Your task to perform on an android device: check google app version Image 0: 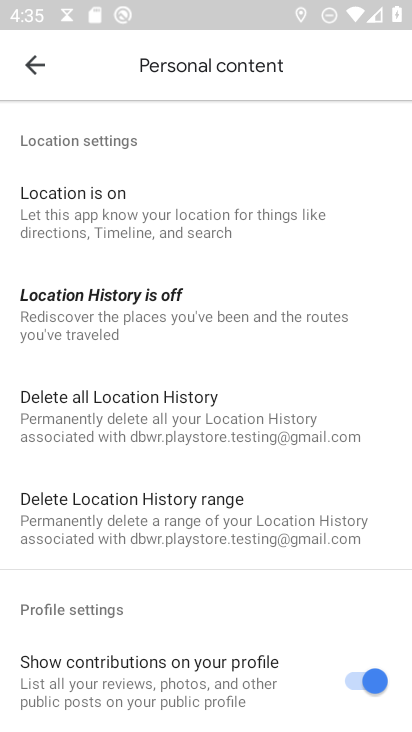
Step 0: press home button
Your task to perform on an android device: check google app version Image 1: 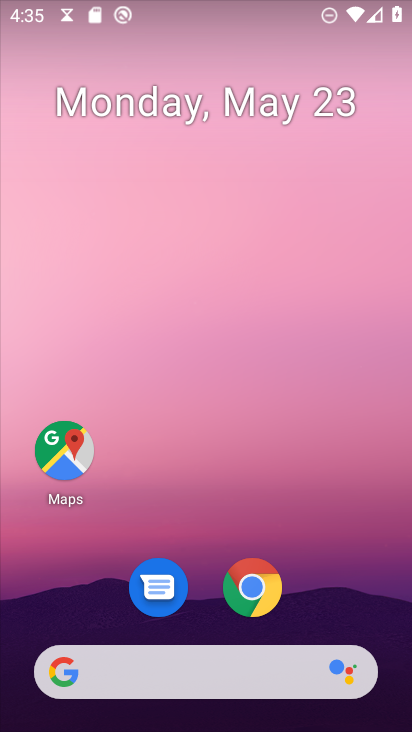
Step 1: drag from (210, 613) to (215, 15)
Your task to perform on an android device: check google app version Image 2: 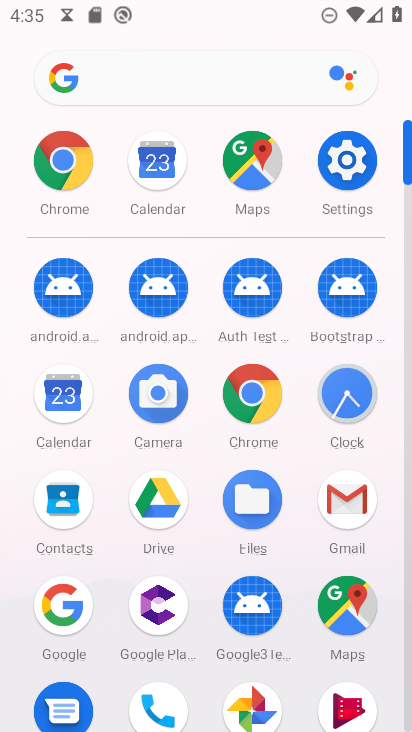
Step 2: click (59, 75)
Your task to perform on an android device: check google app version Image 3: 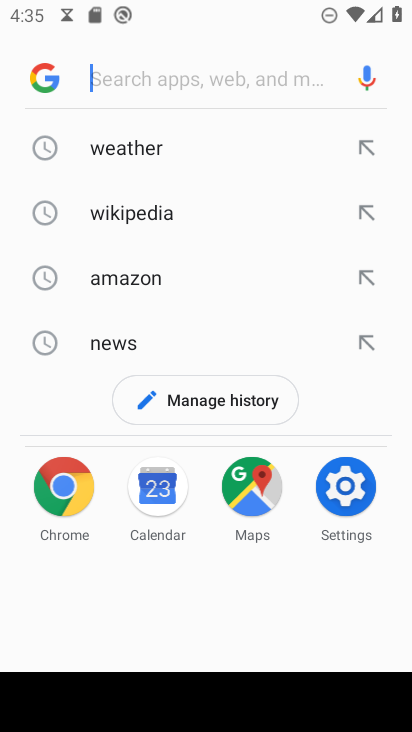
Step 3: click (55, 80)
Your task to perform on an android device: check google app version Image 4: 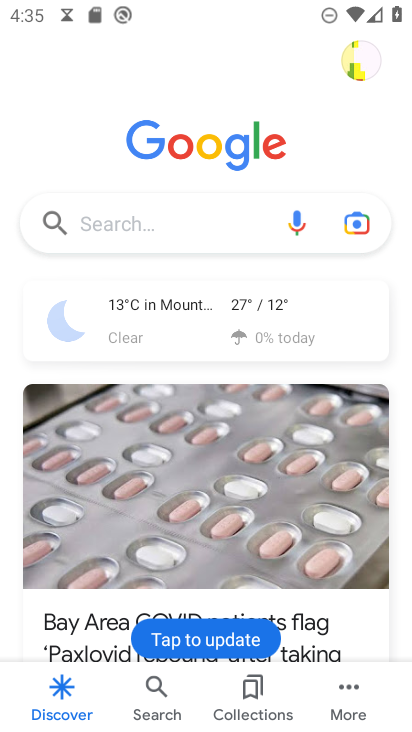
Step 4: click (345, 693)
Your task to perform on an android device: check google app version Image 5: 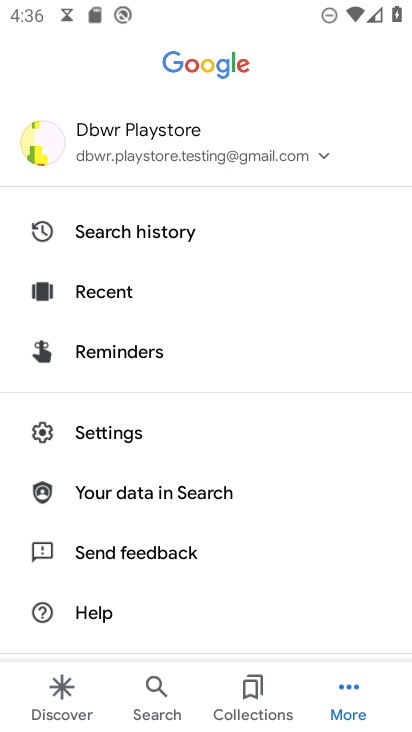
Step 5: drag from (144, 602) to (144, 494)
Your task to perform on an android device: check google app version Image 6: 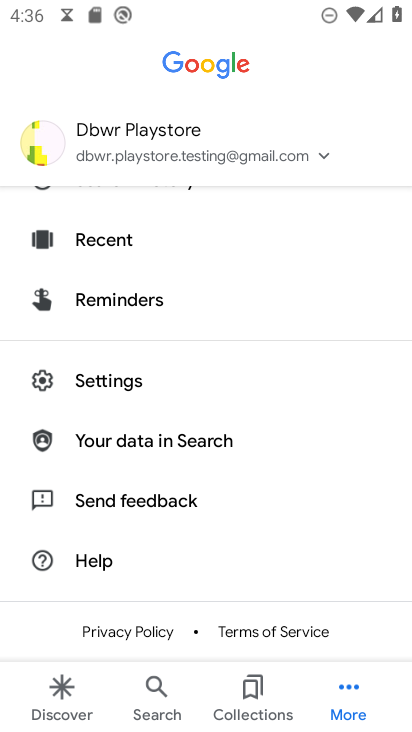
Step 6: click (111, 382)
Your task to perform on an android device: check google app version Image 7: 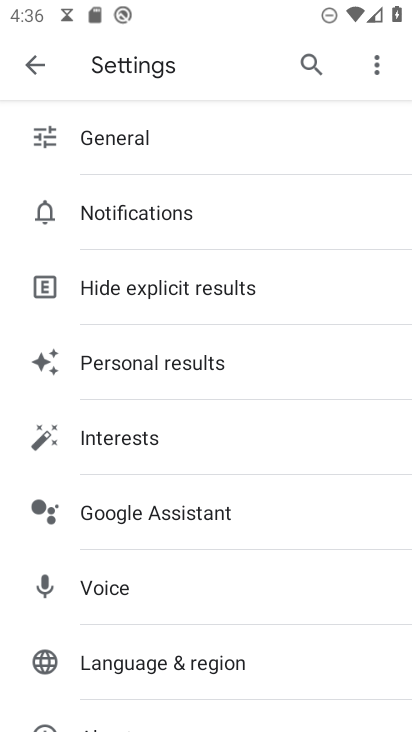
Step 7: drag from (119, 601) to (162, 343)
Your task to perform on an android device: check google app version Image 8: 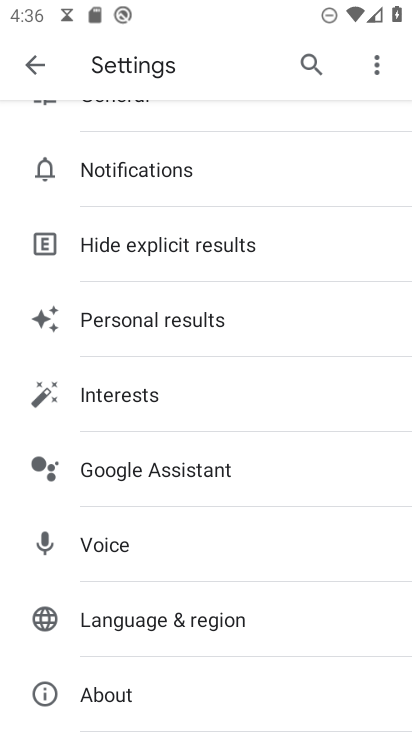
Step 8: click (111, 687)
Your task to perform on an android device: check google app version Image 9: 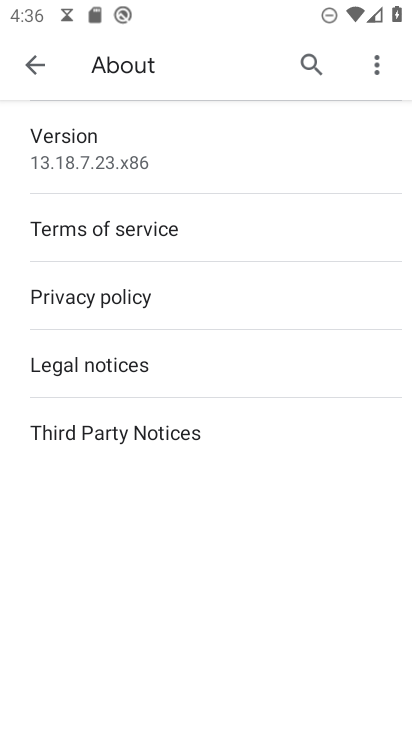
Step 9: task complete